Your task to perform on an android device: Open CNN.com Image 0: 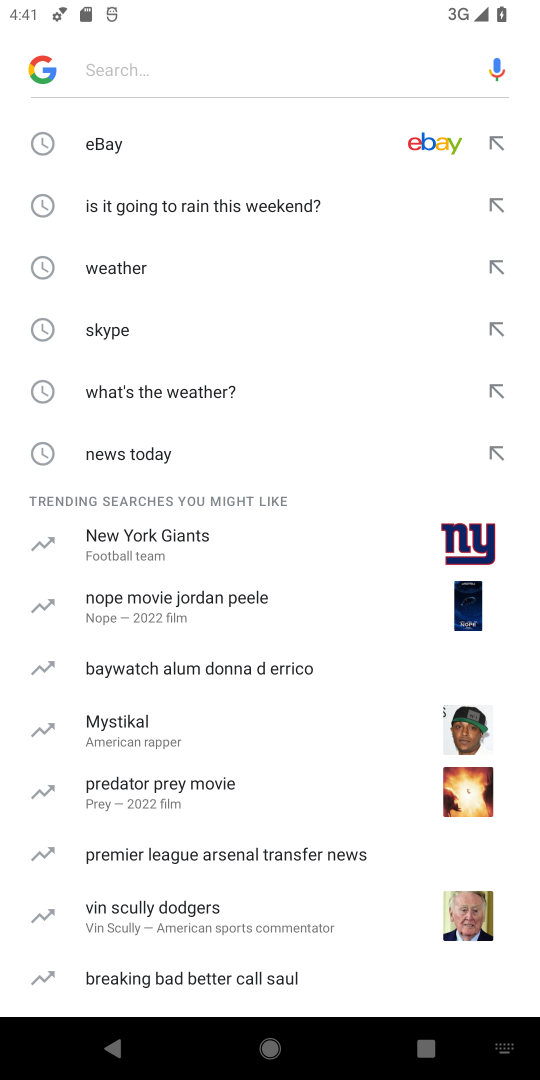
Step 0: press home button
Your task to perform on an android device: Open CNN.com Image 1: 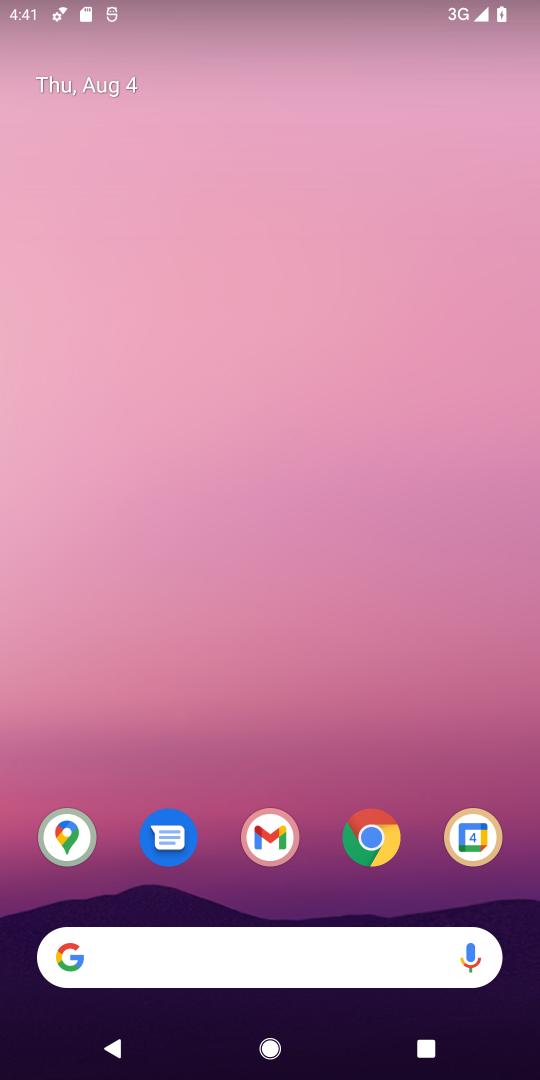
Step 1: click (383, 839)
Your task to perform on an android device: Open CNN.com Image 2: 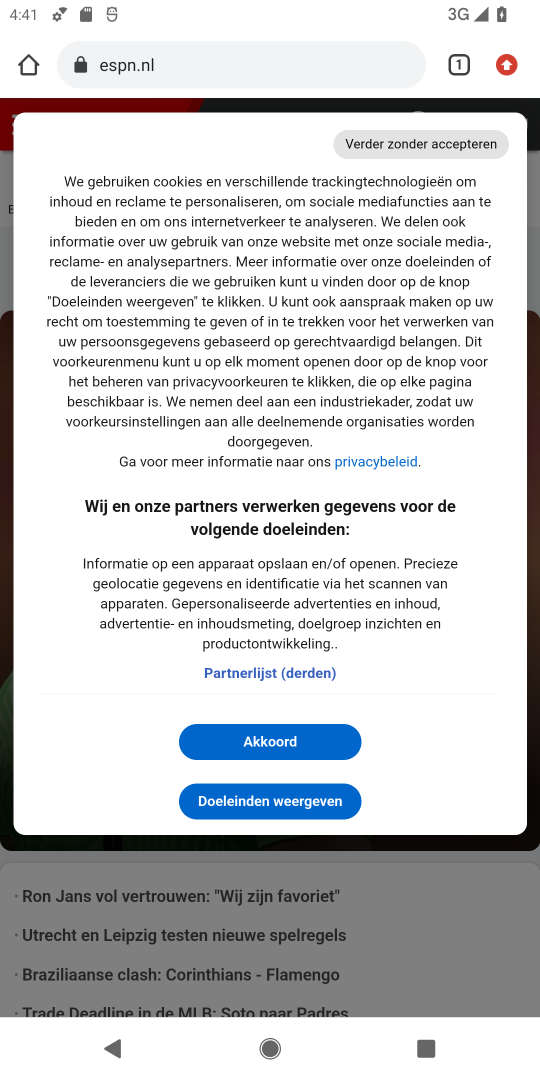
Step 2: click (265, 47)
Your task to perform on an android device: Open CNN.com Image 3: 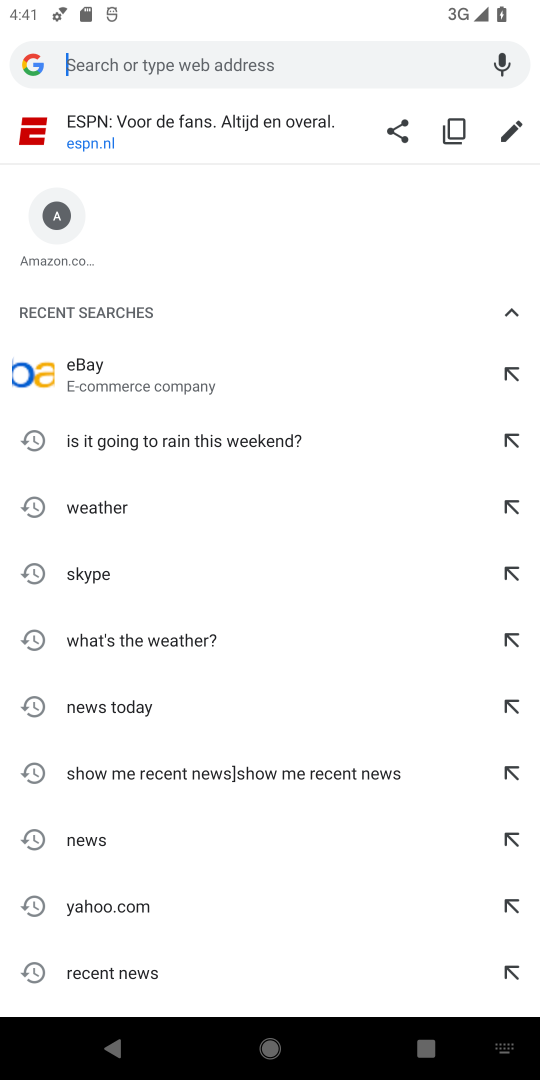
Step 3: type "CNN.com"
Your task to perform on an android device: Open CNN.com Image 4: 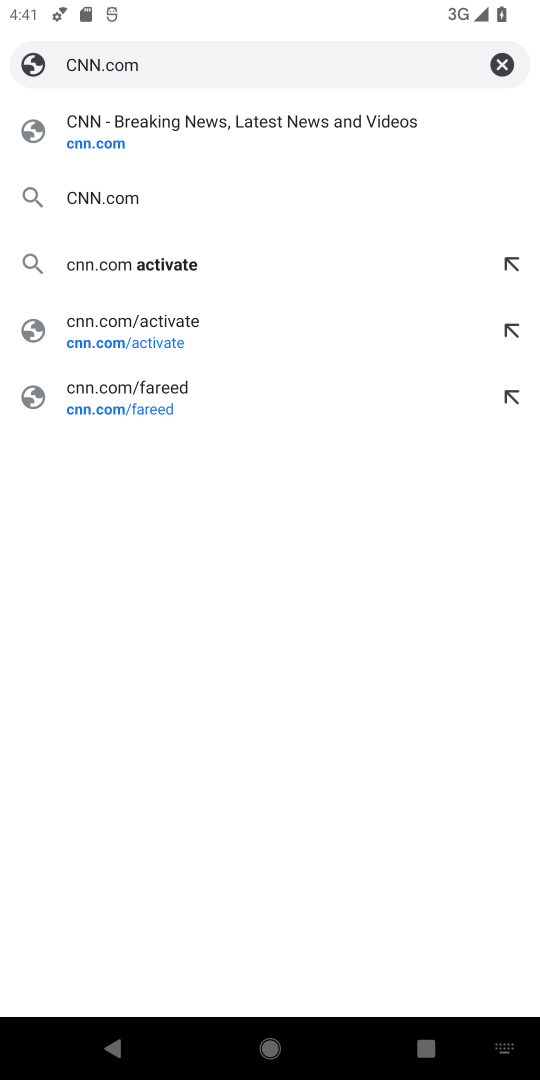
Step 4: click (220, 145)
Your task to perform on an android device: Open CNN.com Image 5: 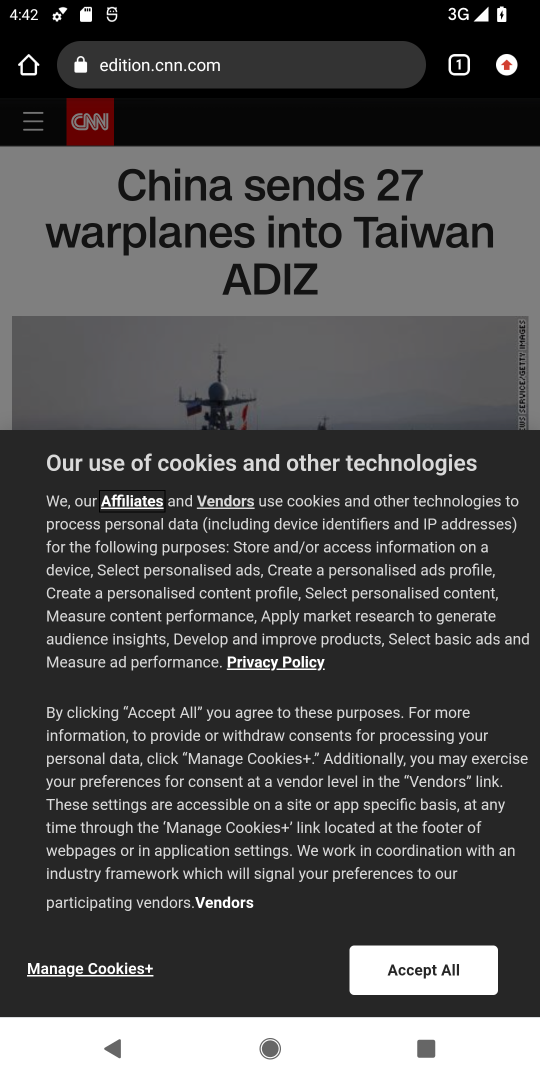
Step 5: task complete